Your task to perform on an android device: check the backup settings in the google photos Image 0: 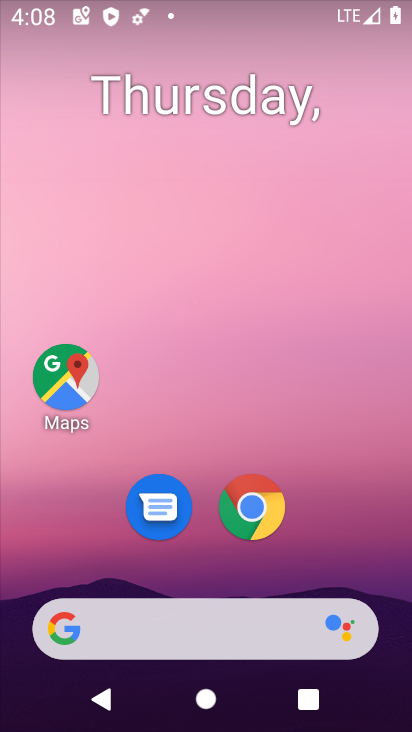
Step 0: press home button
Your task to perform on an android device: check the backup settings in the google photos Image 1: 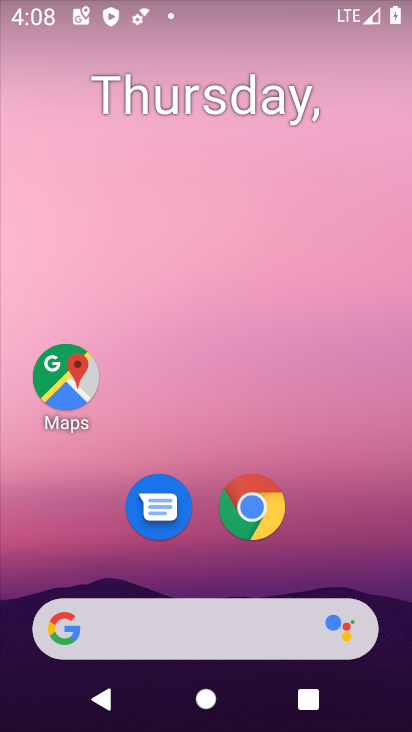
Step 1: click (273, 509)
Your task to perform on an android device: check the backup settings in the google photos Image 2: 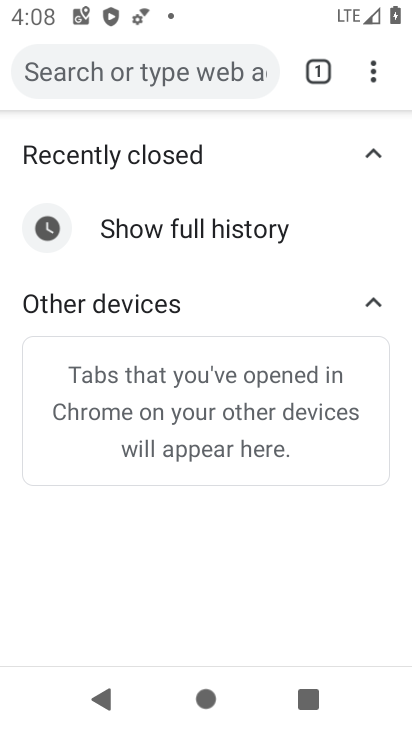
Step 2: drag from (371, 74) to (148, 560)
Your task to perform on an android device: check the backup settings in the google photos Image 3: 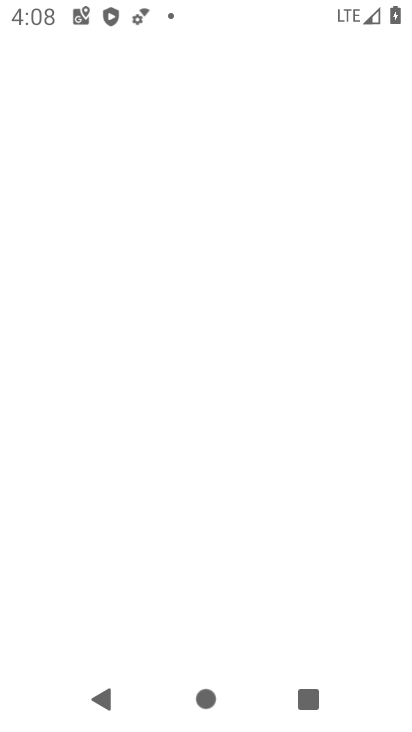
Step 3: press home button
Your task to perform on an android device: check the backup settings in the google photos Image 4: 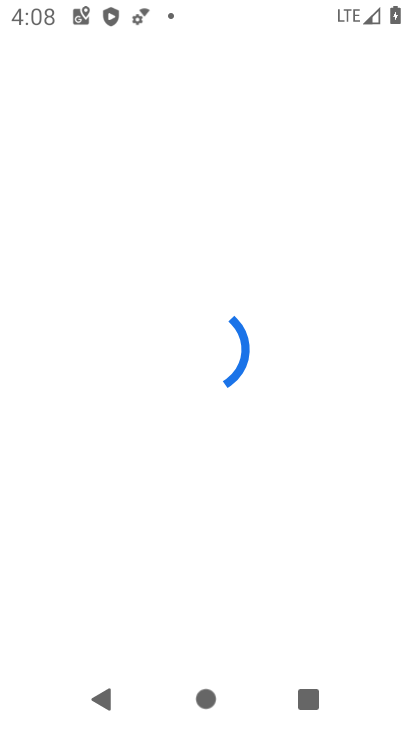
Step 4: press home button
Your task to perform on an android device: check the backup settings in the google photos Image 5: 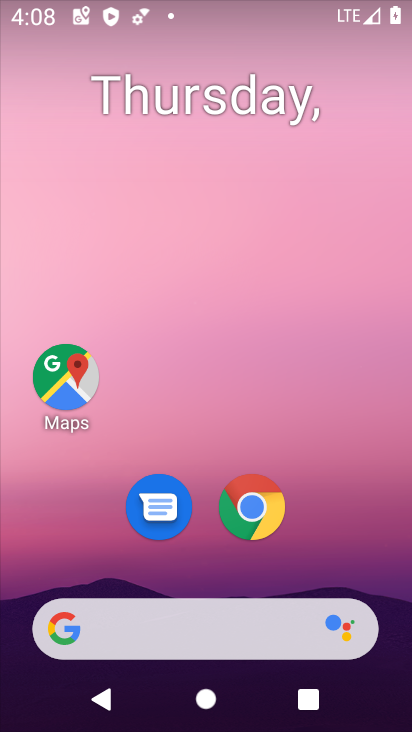
Step 5: drag from (359, 536) to (294, 64)
Your task to perform on an android device: check the backup settings in the google photos Image 6: 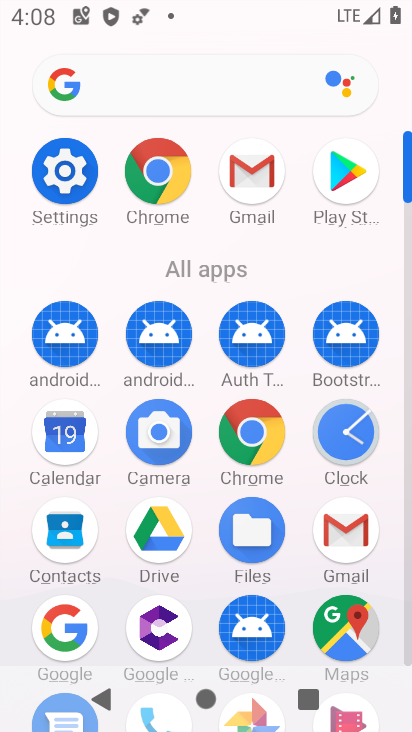
Step 6: click (405, 604)
Your task to perform on an android device: check the backup settings in the google photos Image 7: 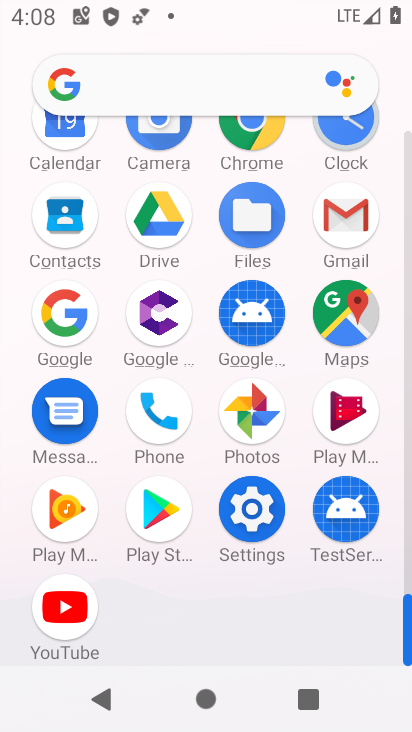
Step 7: click (410, 439)
Your task to perform on an android device: check the backup settings in the google photos Image 8: 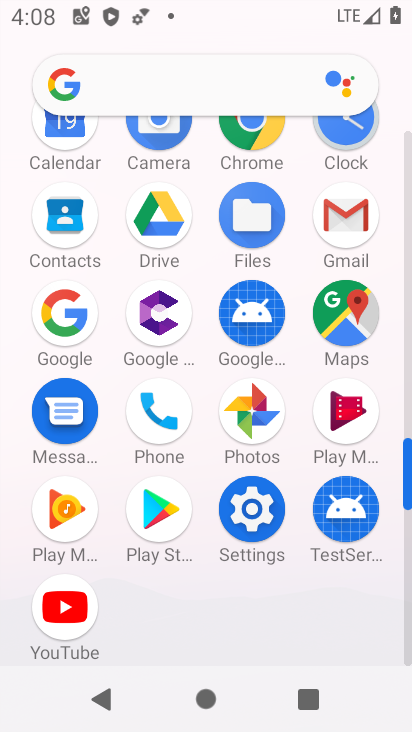
Step 8: drag from (410, 439) to (410, 393)
Your task to perform on an android device: check the backup settings in the google photos Image 9: 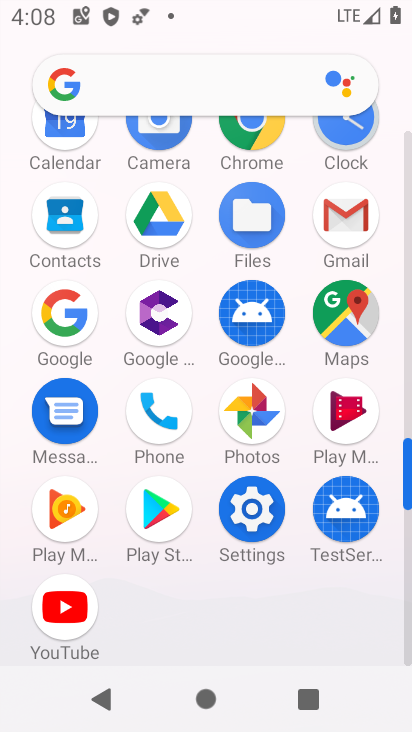
Step 9: click (265, 414)
Your task to perform on an android device: check the backup settings in the google photos Image 10: 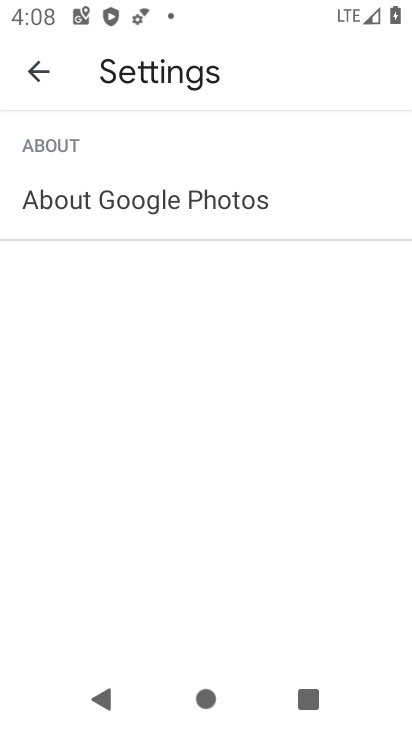
Step 10: click (45, 66)
Your task to perform on an android device: check the backup settings in the google photos Image 11: 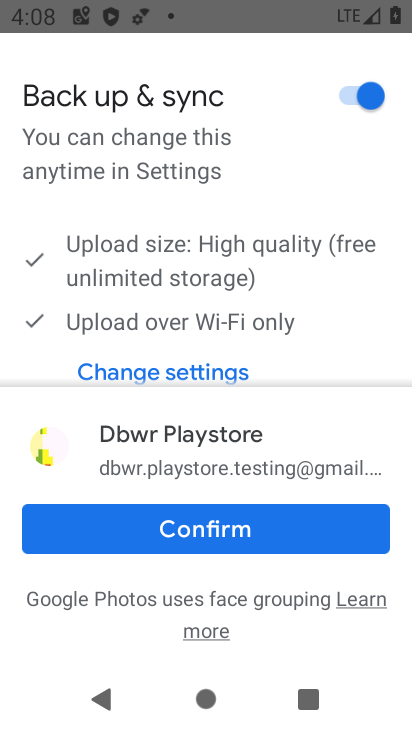
Step 11: click (234, 536)
Your task to perform on an android device: check the backup settings in the google photos Image 12: 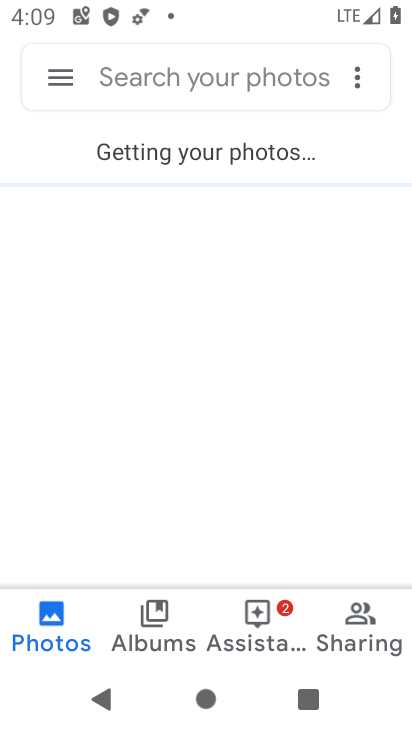
Step 12: click (60, 78)
Your task to perform on an android device: check the backup settings in the google photos Image 13: 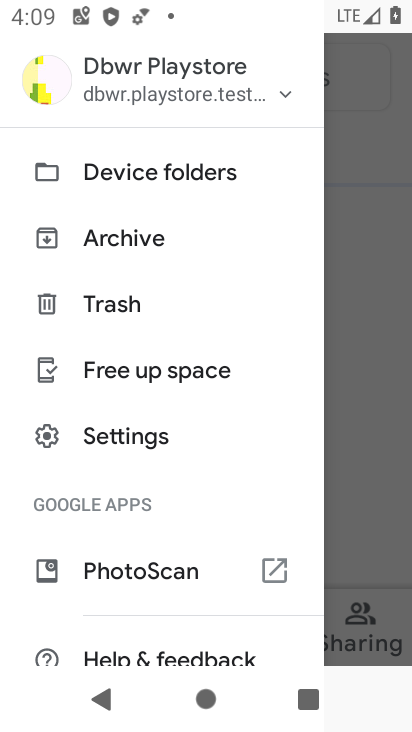
Step 13: click (138, 434)
Your task to perform on an android device: check the backup settings in the google photos Image 14: 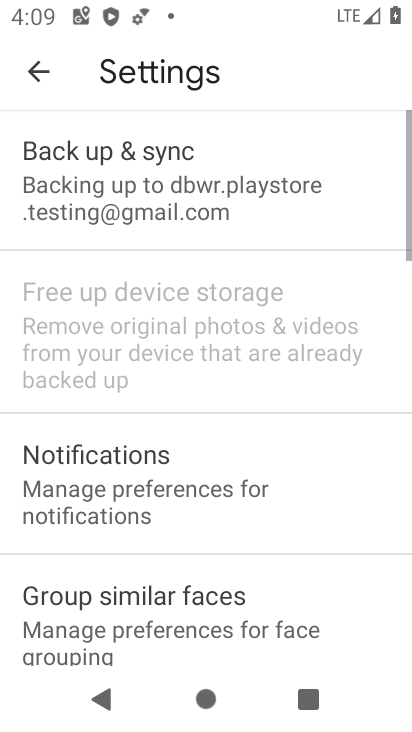
Step 14: click (113, 216)
Your task to perform on an android device: check the backup settings in the google photos Image 15: 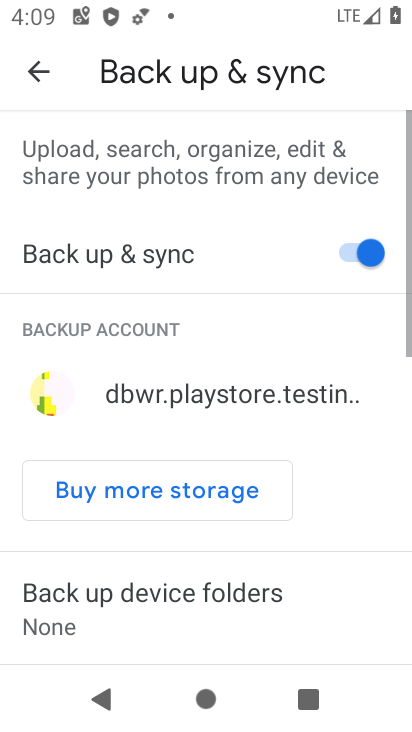
Step 15: task complete